Your task to perform on an android device: Open the web browser Image 0: 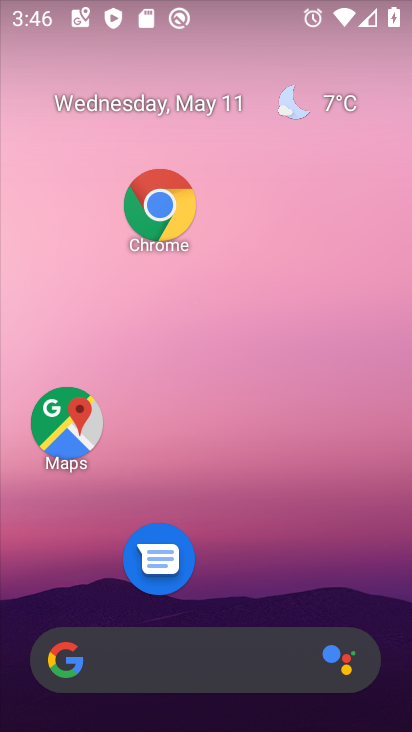
Step 0: click (168, 187)
Your task to perform on an android device: Open the web browser Image 1: 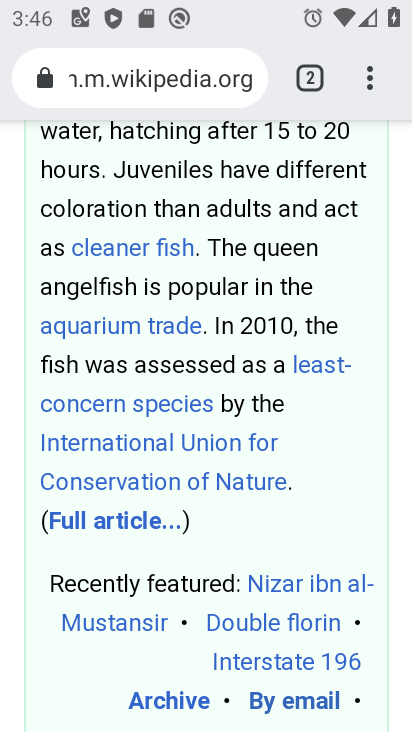
Step 1: press home button
Your task to perform on an android device: Open the web browser Image 2: 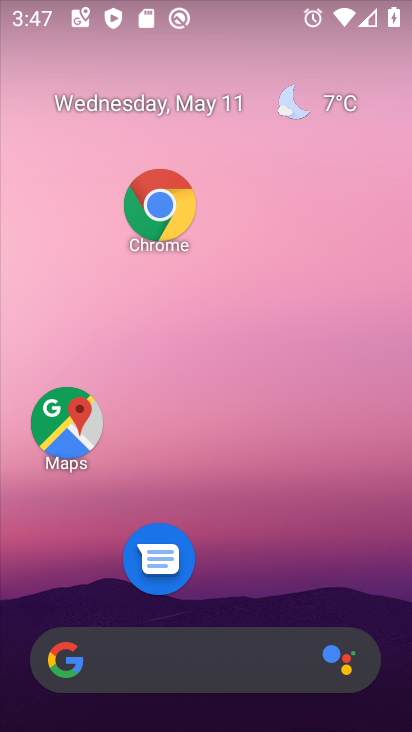
Step 2: click (169, 193)
Your task to perform on an android device: Open the web browser Image 3: 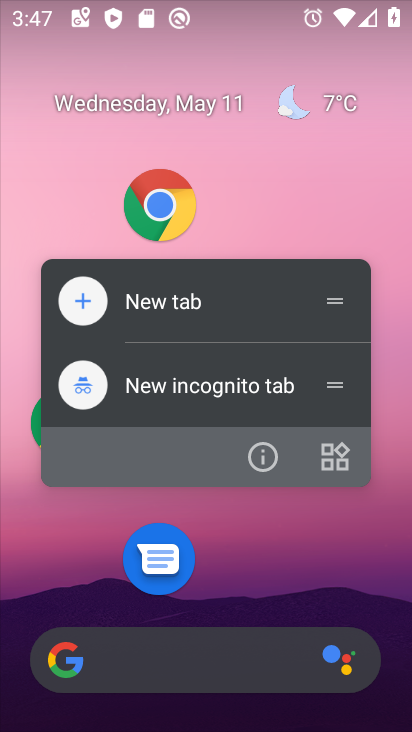
Step 3: click (169, 198)
Your task to perform on an android device: Open the web browser Image 4: 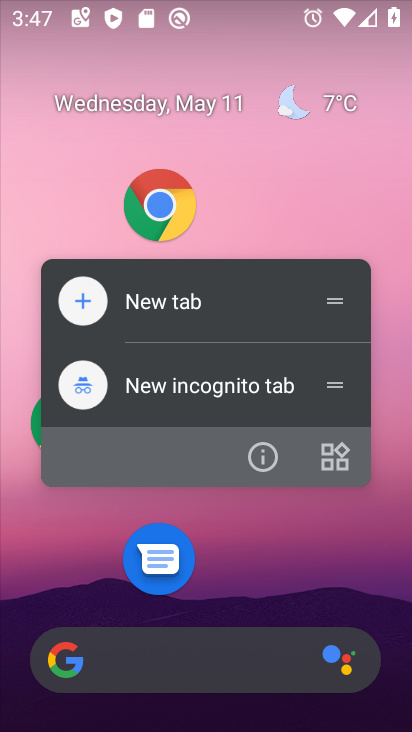
Step 4: click (166, 216)
Your task to perform on an android device: Open the web browser Image 5: 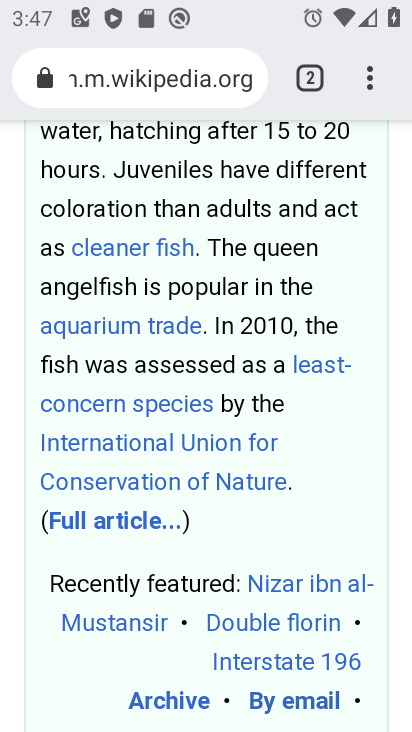
Step 5: task complete